Your task to perform on an android device: Go to Yahoo.com Image 0: 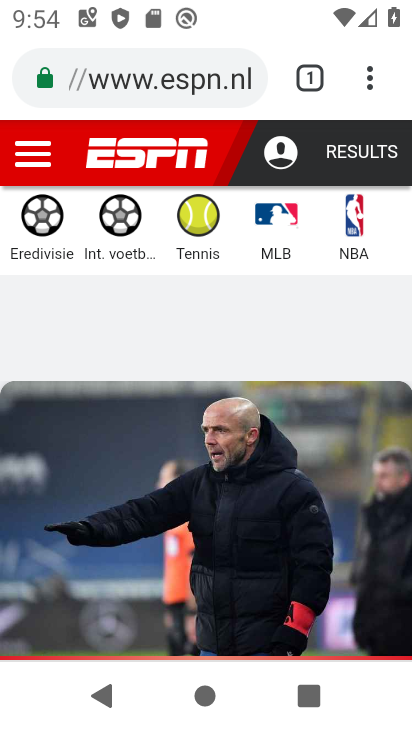
Step 0: press home button
Your task to perform on an android device: Go to Yahoo.com Image 1: 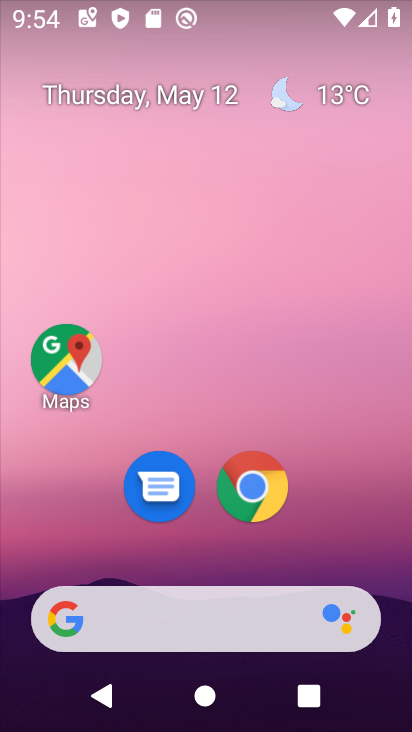
Step 1: click (269, 487)
Your task to perform on an android device: Go to Yahoo.com Image 2: 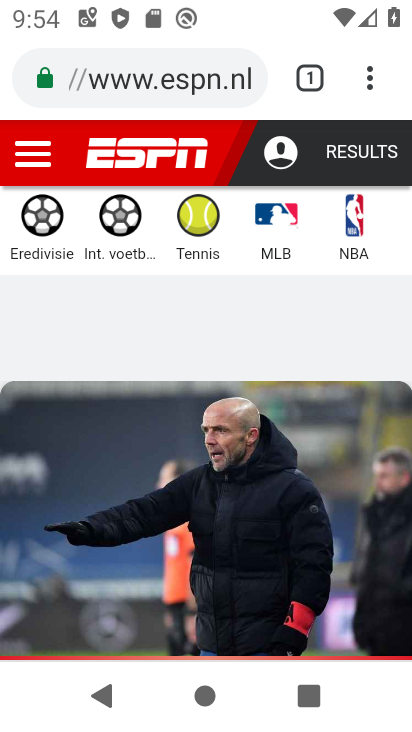
Step 2: click (241, 71)
Your task to perform on an android device: Go to Yahoo.com Image 3: 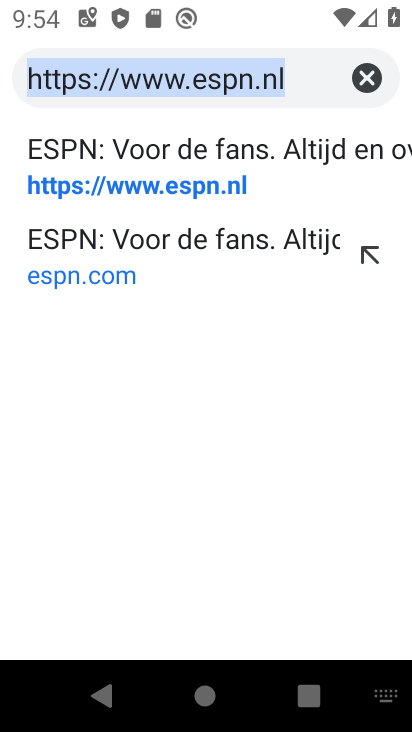
Step 3: click (375, 78)
Your task to perform on an android device: Go to Yahoo.com Image 4: 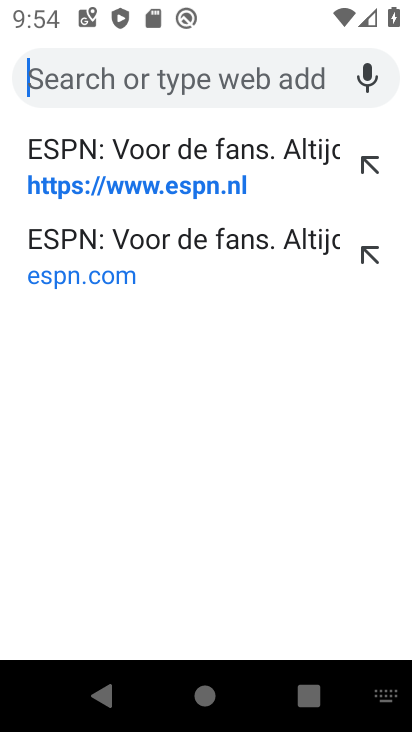
Step 4: type "yahoo.com"
Your task to perform on an android device: Go to Yahoo.com Image 5: 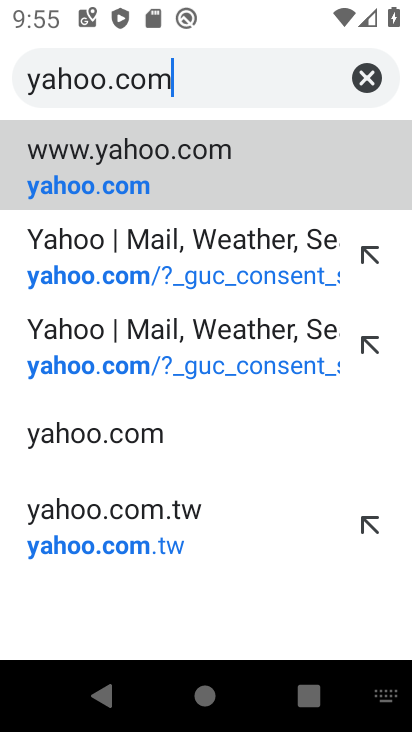
Step 5: click (277, 183)
Your task to perform on an android device: Go to Yahoo.com Image 6: 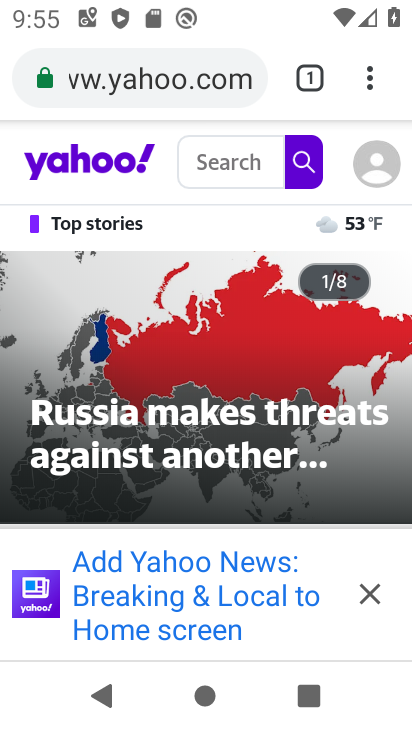
Step 6: task complete